Your task to perform on an android device: check storage Image 0: 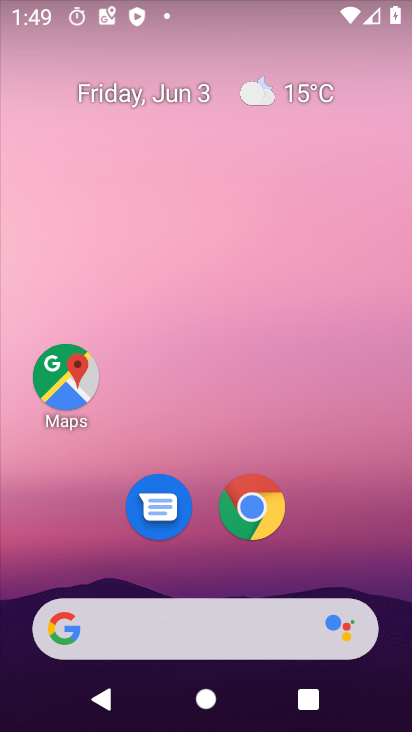
Step 0: drag from (396, 610) to (295, 123)
Your task to perform on an android device: check storage Image 1: 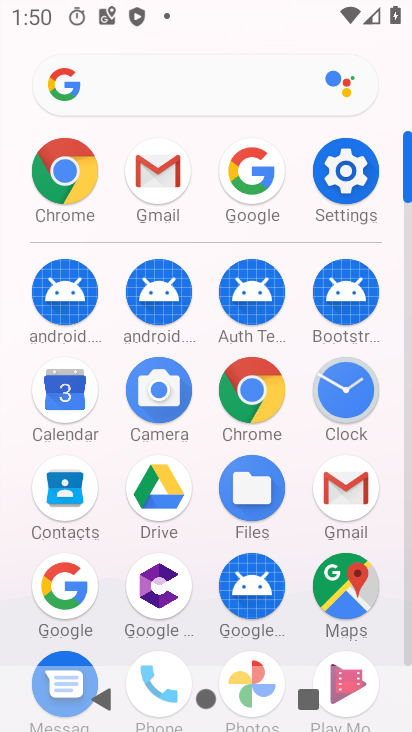
Step 1: click (345, 173)
Your task to perform on an android device: check storage Image 2: 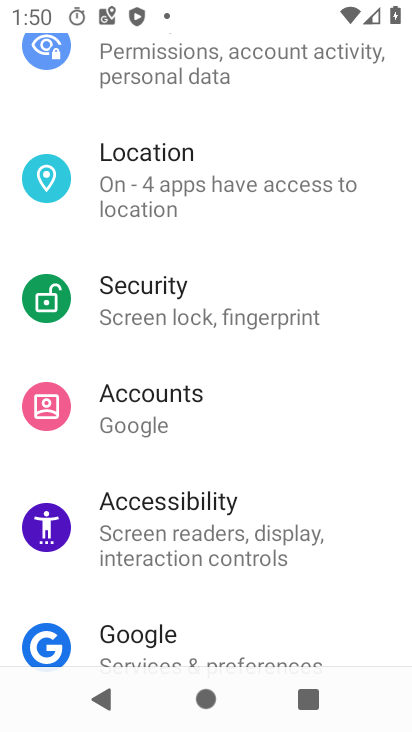
Step 2: drag from (185, 565) to (226, 32)
Your task to perform on an android device: check storage Image 3: 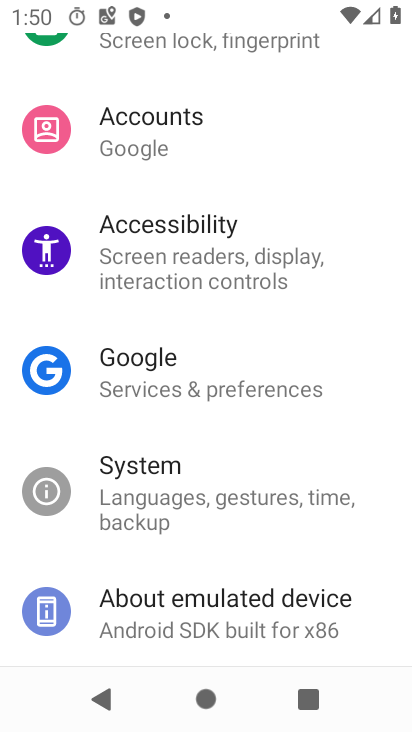
Step 3: drag from (136, 146) to (168, 664)
Your task to perform on an android device: check storage Image 4: 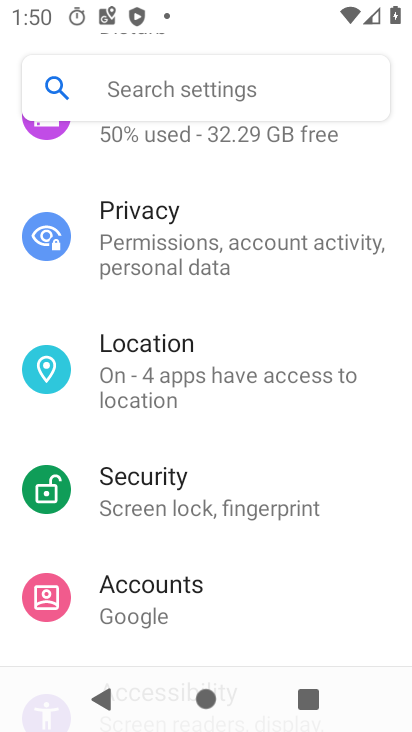
Step 4: drag from (191, 188) to (223, 628)
Your task to perform on an android device: check storage Image 5: 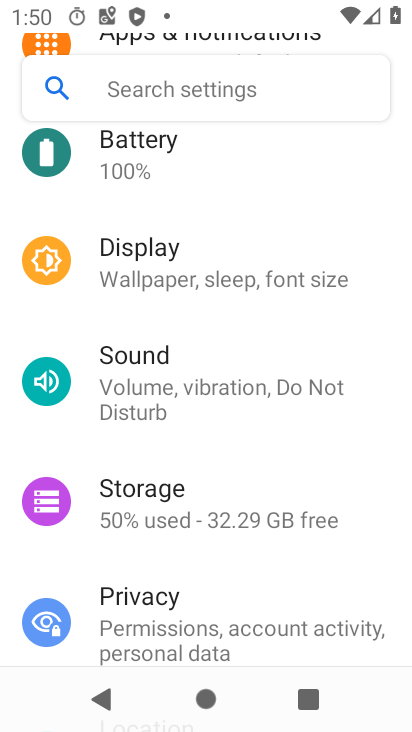
Step 5: click (177, 521)
Your task to perform on an android device: check storage Image 6: 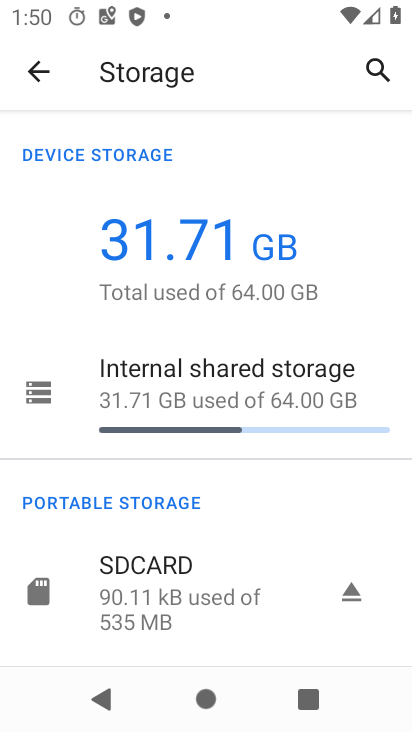
Step 6: click (208, 385)
Your task to perform on an android device: check storage Image 7: 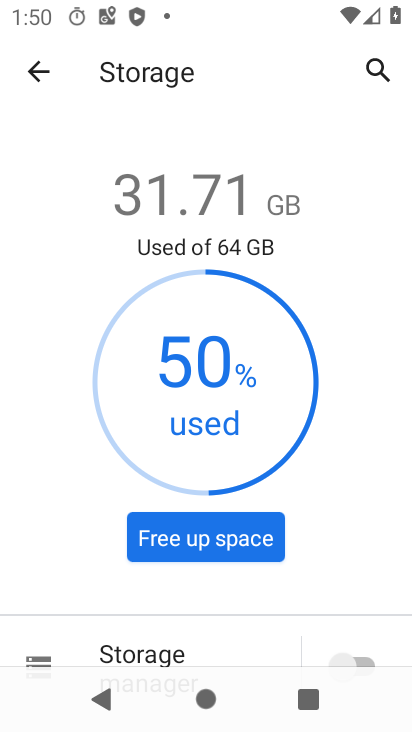
Step 7: task complete